Your task to perform on an android device: find which apps use the phone's location Image 0: 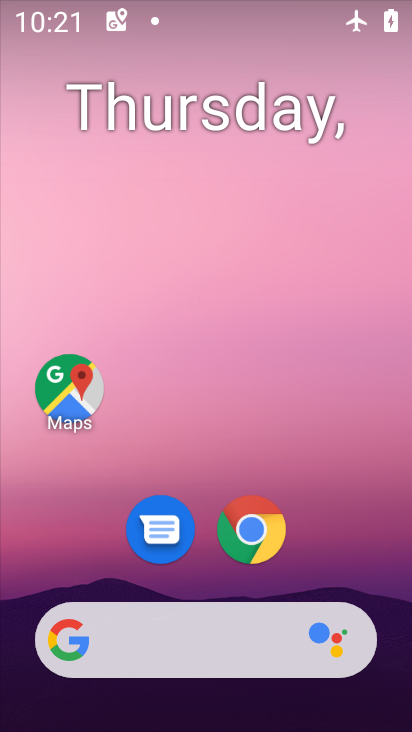
Step 0: drag from (232, 575) to (264, 109)
Your task to perform on an android device: find which apps use the phone's location Image 1: 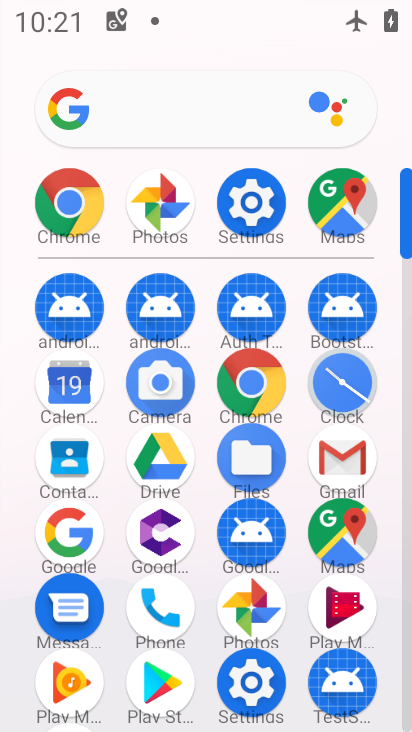
Step 1: click (249, 201)
Your task to perform on an android device: find which apps use the phone's location Image 2: 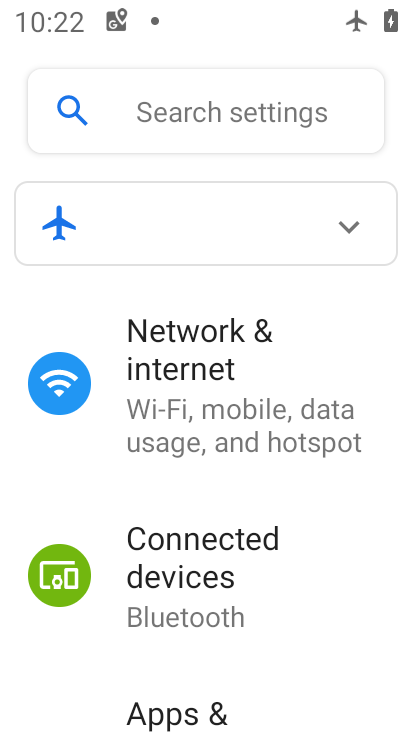
Step 2: drag from (204, 634) to (250, 333)
Your task to perform on an android device: find which apps use the phone's location Image 3: 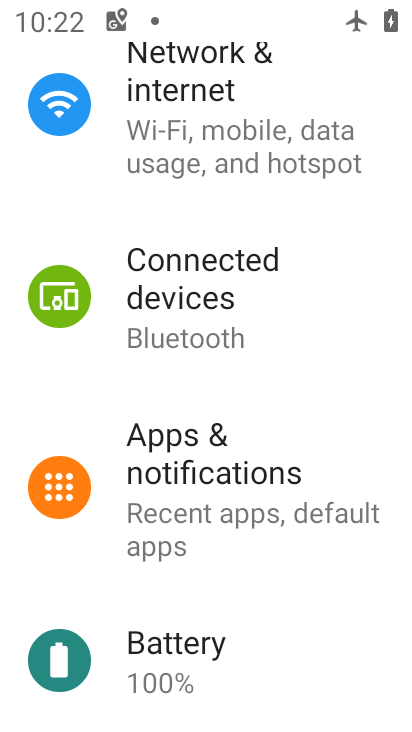
Step 3: drag from (277, 678) to (293, 376)
Your task to perform on an android device: find which apps use the phone's location Image 4: 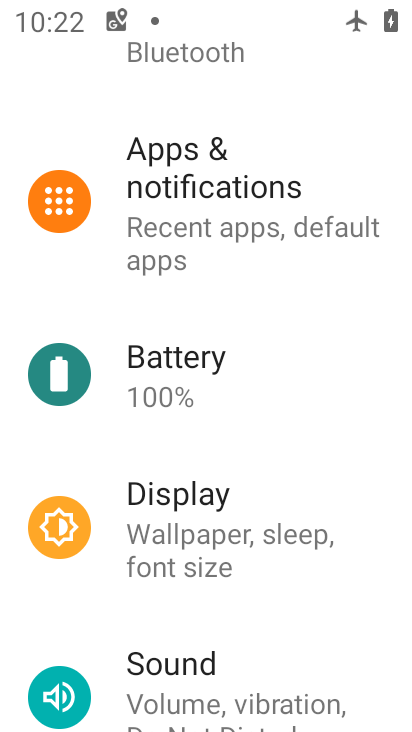
Step 4: drag from (237, 634) to (230, 312)
Your task to perform on an android device: find which apps use the phone's location Image 5: 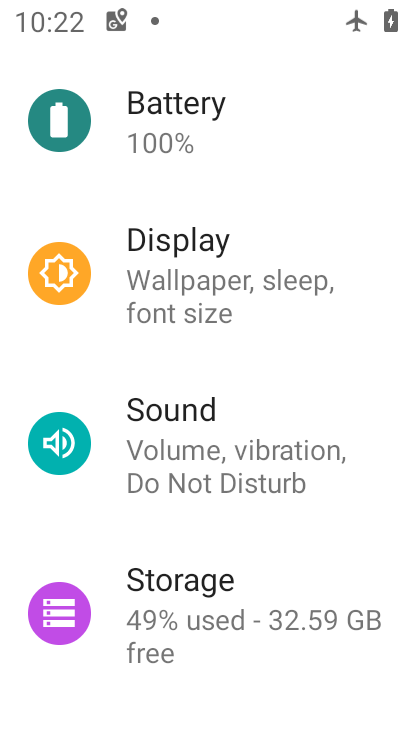
Step 5: drag from (243, 592) to (229, 392)
Your task to perform on an android device: find which apps use the phone's location Image 6: 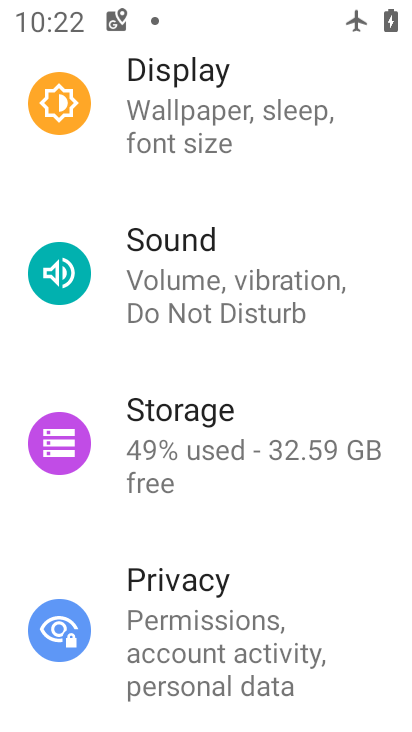
Step 6: drag from (187, 628) to (196, 234)
Your task to perform on an android device: find which apps use the phone's location Image 7: 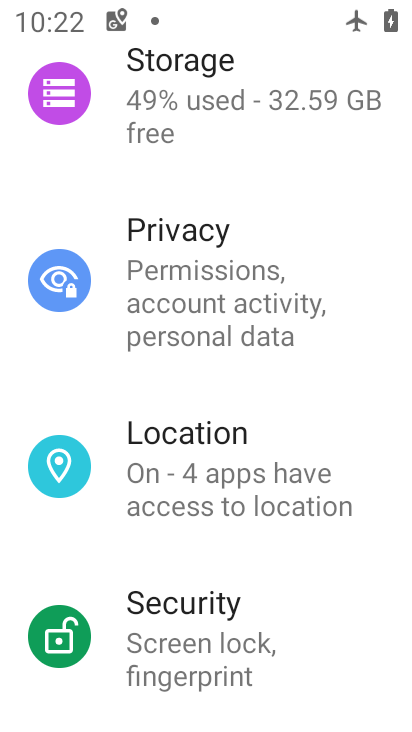
Step 7: drag from (168, 671) to (159, 270)
Your task to perform on an android device: find which apps use the phone's location Image 8: 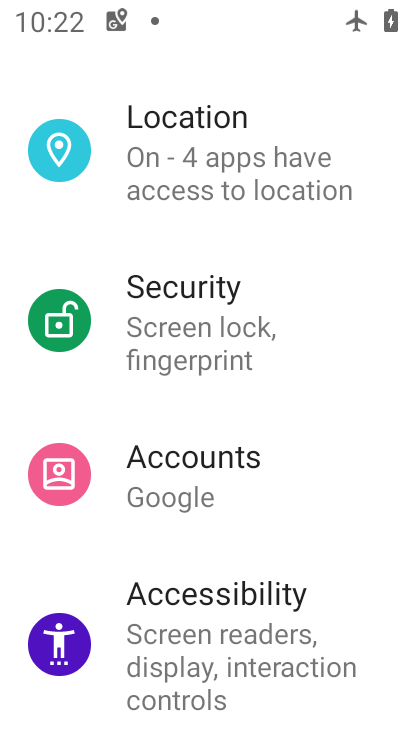
Step 8: drag from (185, 586) to (202, 441)
Your task to perform on an android device: find which apps use the phone's location Image 9: 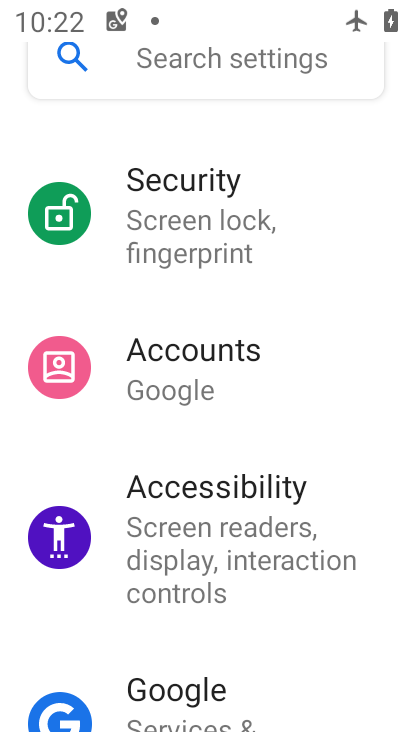
Step 9: drag from (192, 187) to (215, 440)
Your task to perform on an android device: find which apps use the phone's location Image 10: 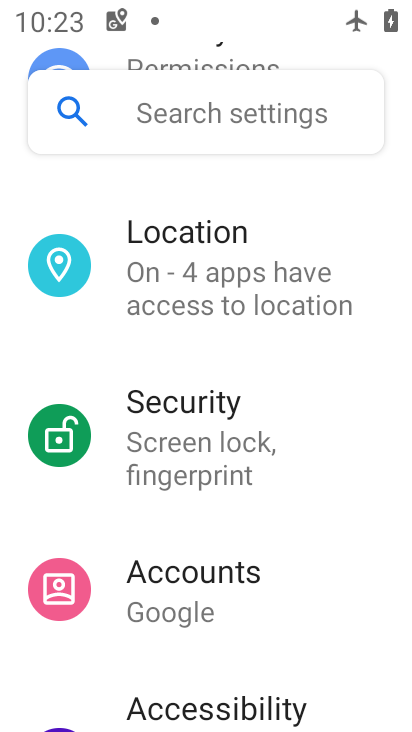
Step 10: click (157, 303)
Your task to perform on an android device: find which apps use the phone's location Image 11: 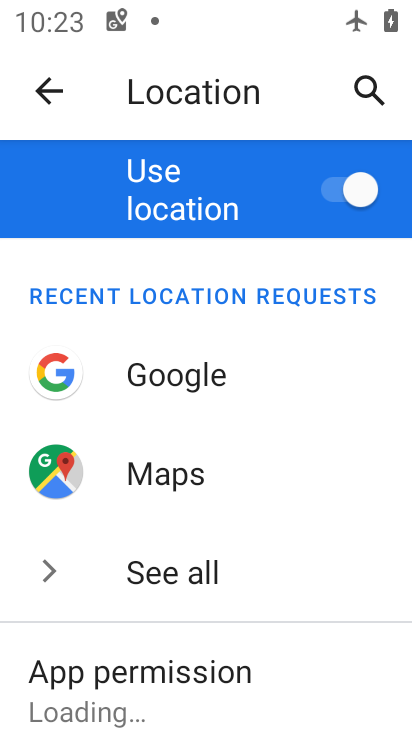
Step 11: click (170, 674)
Your task to perform on an android device: find which apps use the phone's location Image 12: 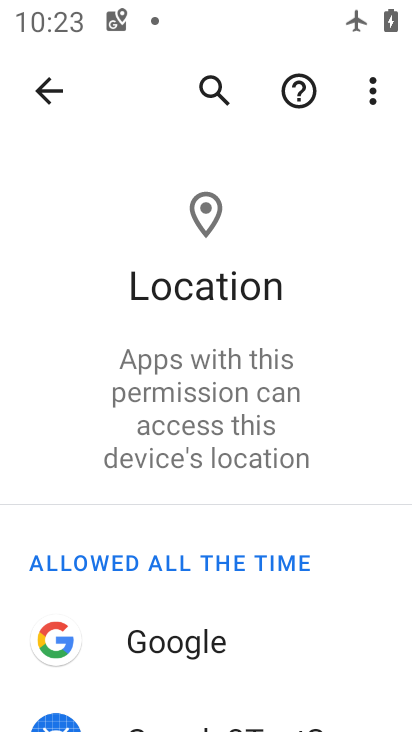
Step 12: task complete